Your task to perform on an android device: turn on bluetooth scan Image 0: 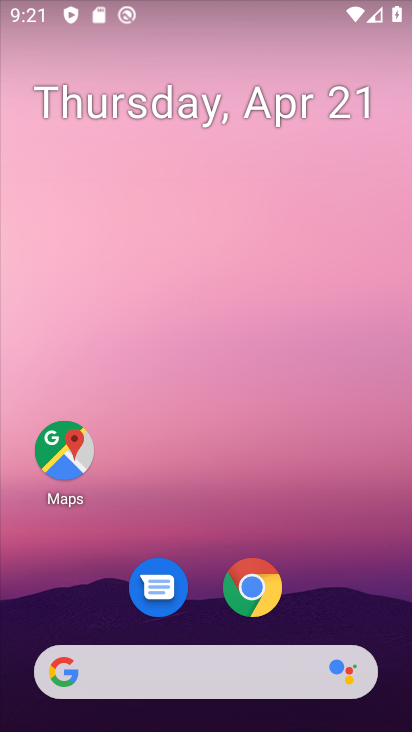
Step 0: drag from (3, 729) to (215, 182)
Your task to perform on an android device: turn on bluetooth scan Image 1: 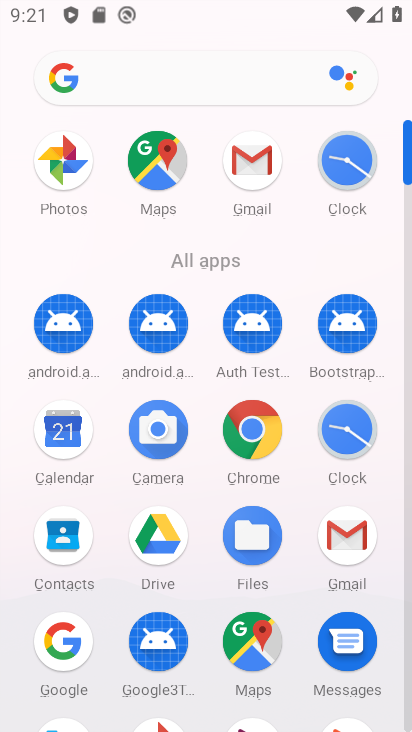
Step 1: drag from (52, 657) to (240, 226)
Your task to perform on an android device: turn on bluetooth scan Image 2: 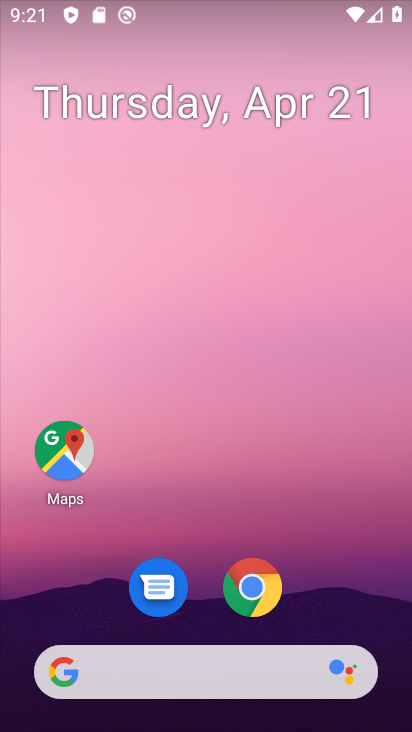
Step 2: drag from (20, 636) to (398, 324)
Your task to perform on an android device: turn on bluetooth scan Image 3: 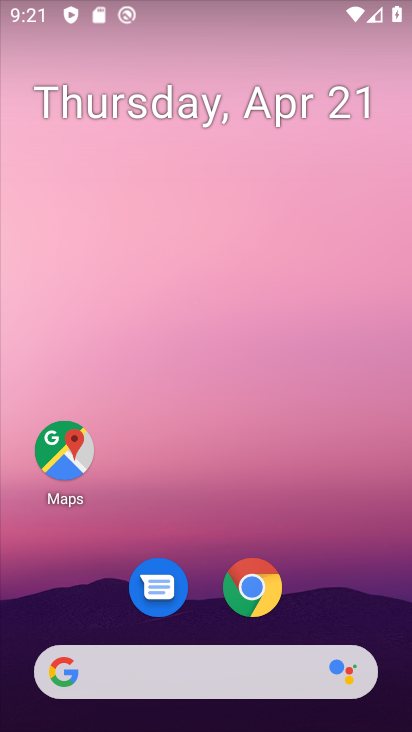
Step 3: drag from (65, 730) to (291, 214)
Your task to perform on an android device: turn on bluetooth scan Image 4: 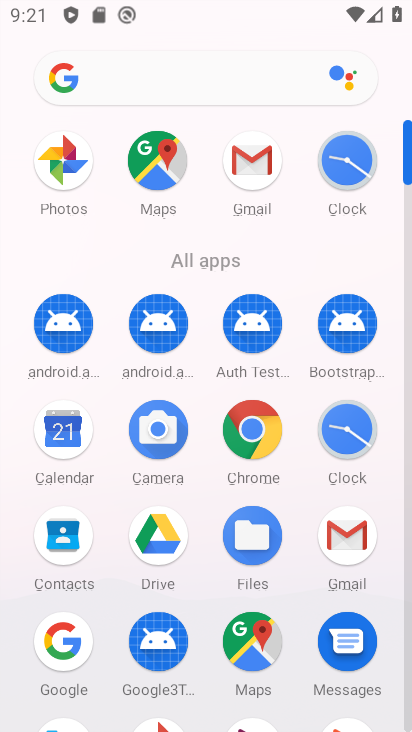
Step 4: drag from (7, 638) to (230, 229)
Your task to perform on an android device: turn on bluetooth scan Image 5: 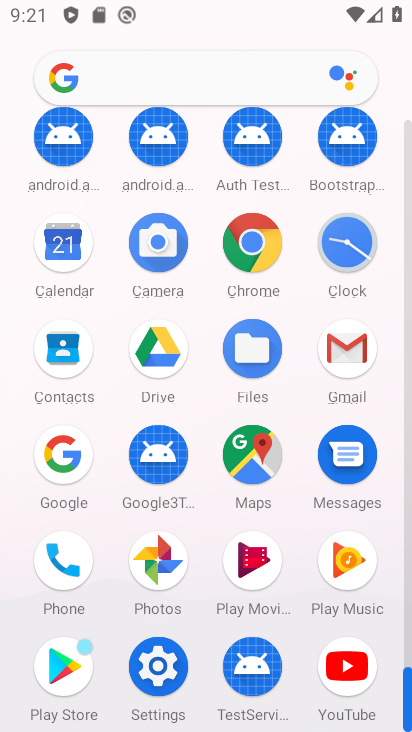
Step 5: click (165, 660)
Your task to perform on an android device: turn on bluetooth scan Image 6: 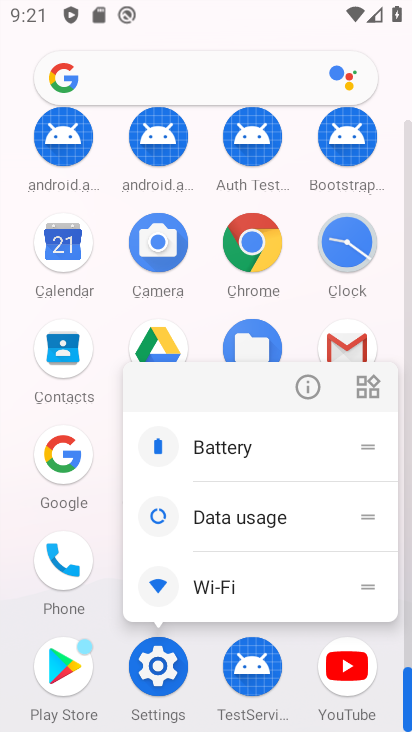
Step 6: click (315, 386)
Your task to perform on an android device: turn on bluetooth scan Image 7: 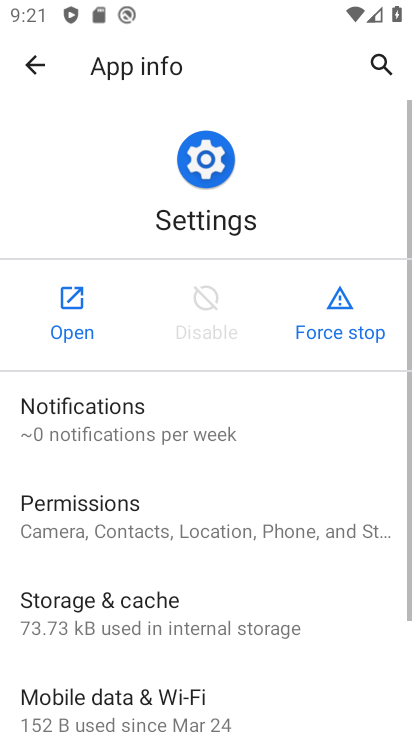
Step 7: click (57, 296)
Your task to perform on an android device: turn on bluetooth scan Image 8: 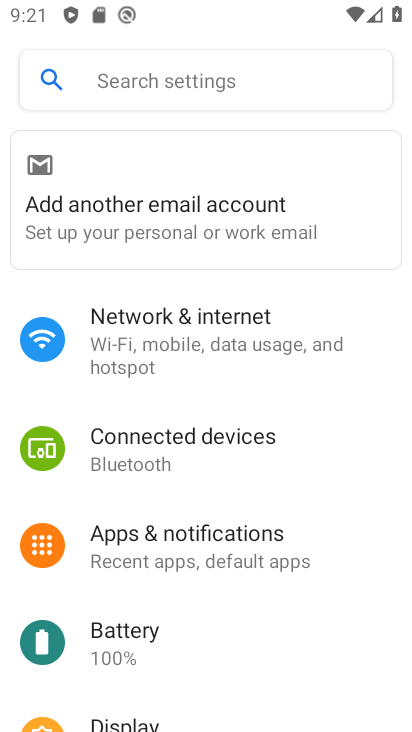
Step 8: drag from (126, 673) to (240, 313)
Your task to perform on an android device: turn on bluetooth scan Image 9: 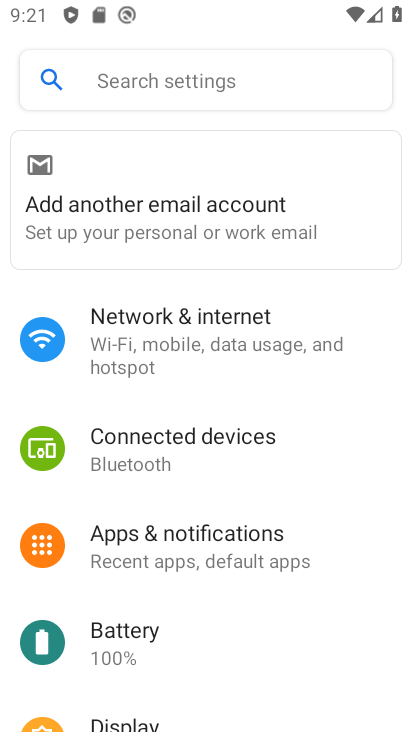
Step 9: drag from (254, 603) to (409, 196)
Your task to perform on an android device: turn on bluetooth scan Image 10: 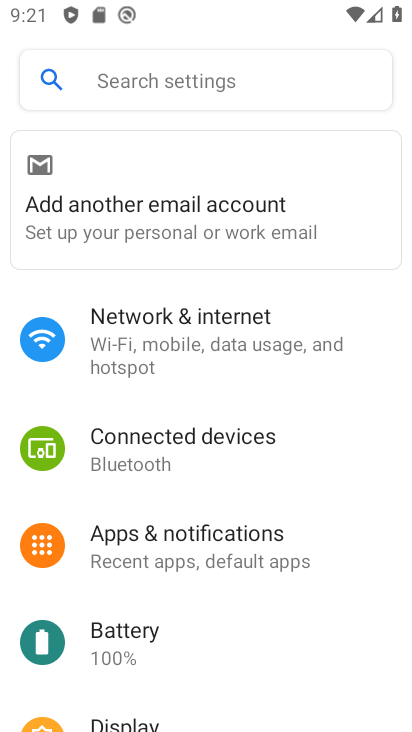
Step 10: drag from (158, 531) to (298, 174)
Your task to perform on an android device: turn on bluetooth scan Image 11: 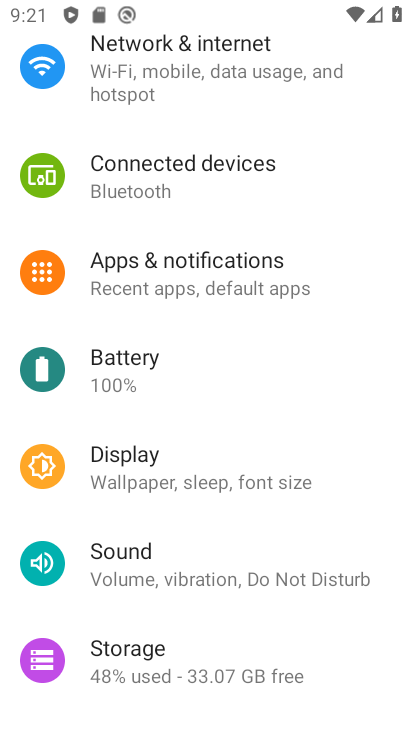
Step 11: drag from (235, 671) to (325, 301)
Your task to perform on an android device: turn on bluetooth scan Image 12: 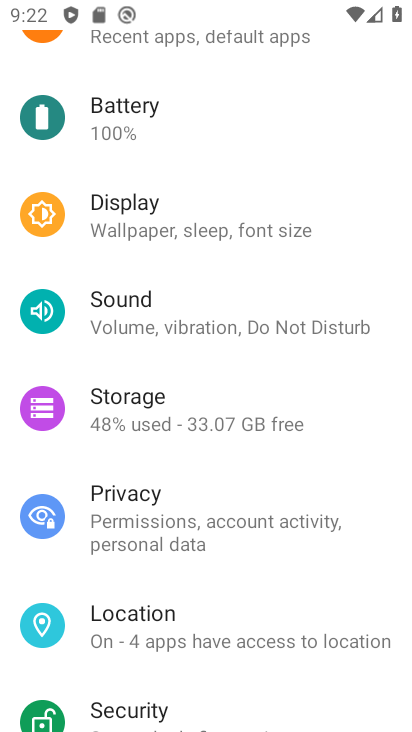
Step 12: click (215, 636)
Your task to perform on an android device: turn on bluetooth scan Image 13: 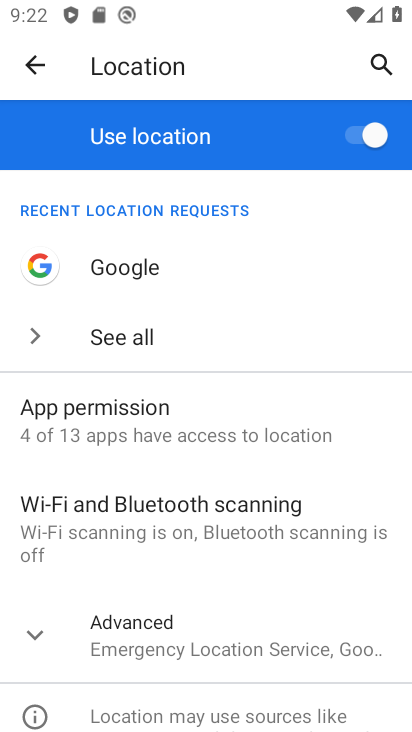
Step 13: click (252, 634)
Your task to perform on an android device: turn on bluetooth scan Image 14: 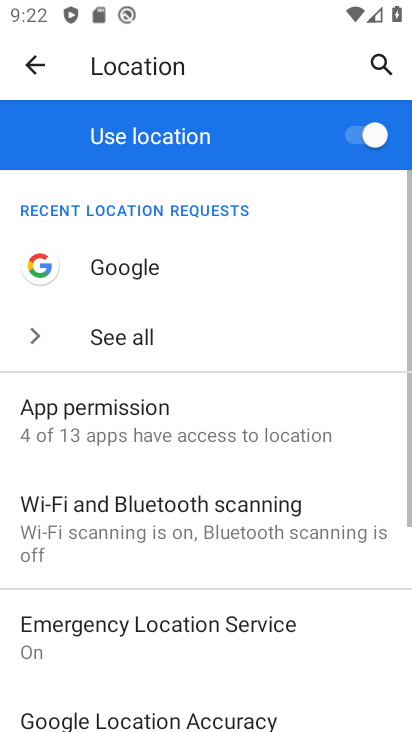
Step 14: drag from (283, 512) to (305, 364)
Your task to perform on an android device: turn on bluetooth scan Image 15: 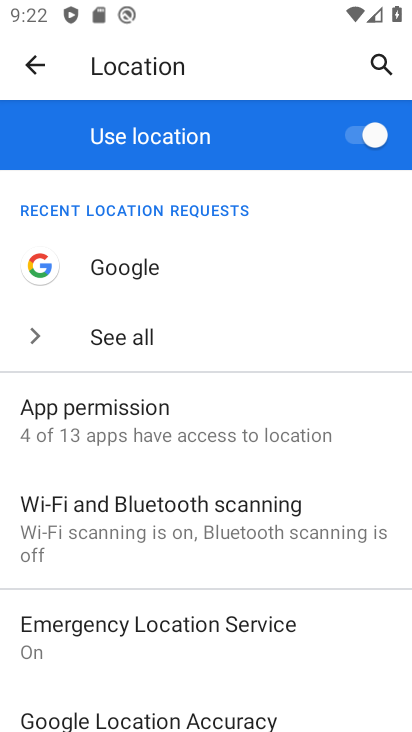
Step 15: drag from (318, 698) to (362, 344)
Your task to perform on an android device: turn on bluetooth scan Image 16: 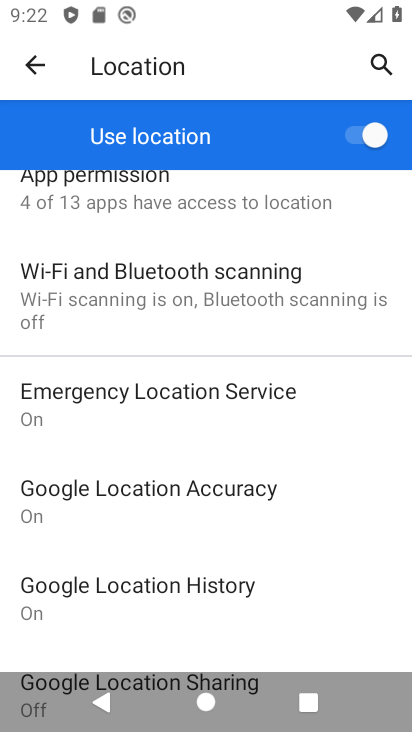
Step 16: drag from (324, 432) to (341, 265)
Your task to perform on an android device: turn on bluetooth scan Image 17: 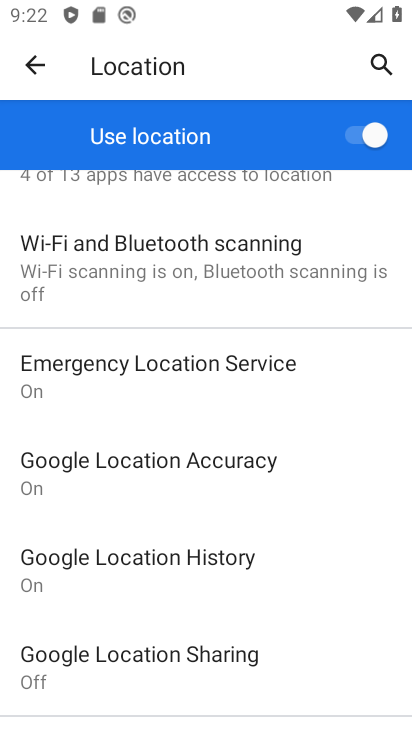
Step 17: click (211, 270)
Your task to perform on an android device: turn on bluetooth scan Image 18: 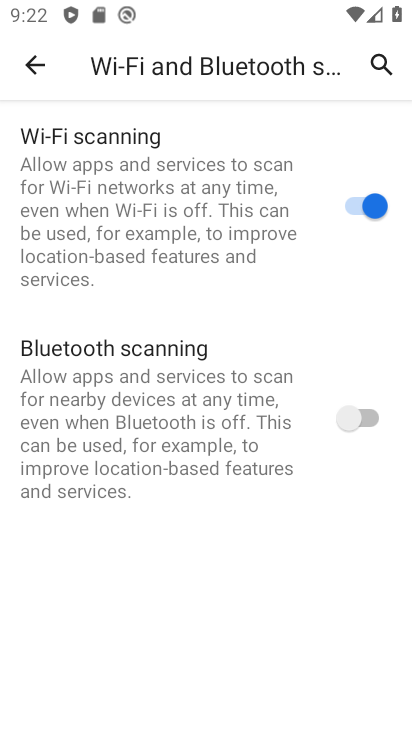
Step 18: click (346, 414)
Your task to perform on an android device: turn on bluetooth scan Image 19: 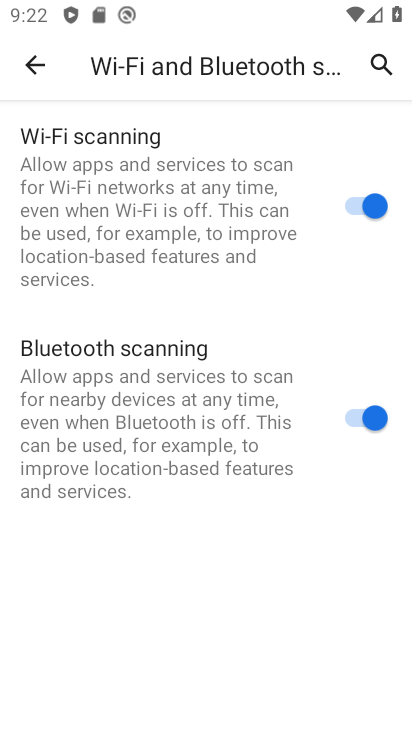
Step 19: task complete